Your task to perform on an android device: Go to Maps Image 0: 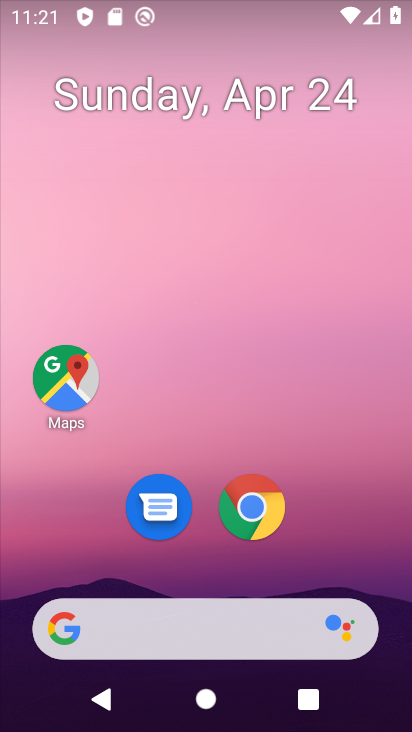
Step 0: drag from (332, 545) to (350, 69)
Your task to perform on an android device: Go to Maps Image 1: 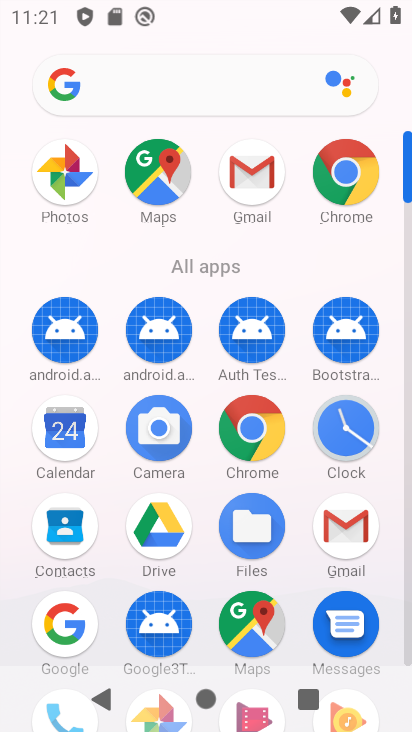
Step 1: click (240, 632)
Your task to perform on an android device: Go to Maps Image 2: 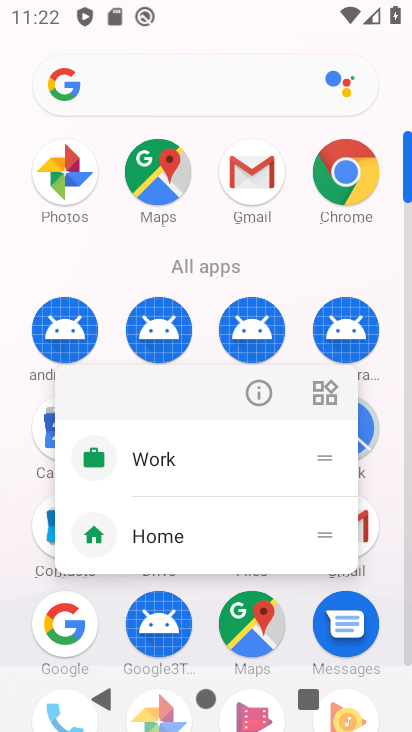
Step 2: click (257, 618)
Your task to perform on an android device: Go to Maps Image 3: 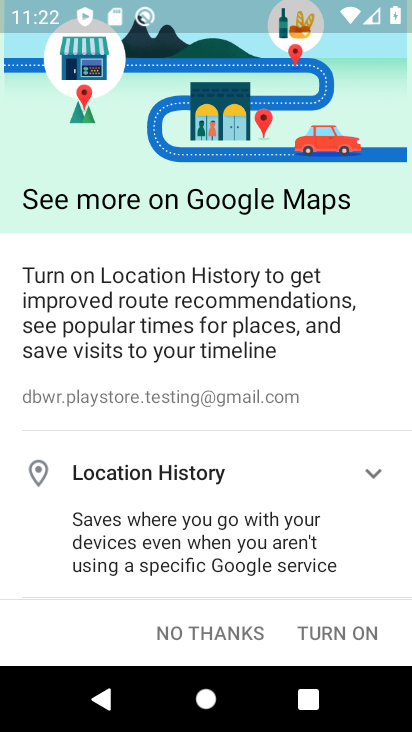
Step 3: click (232, 626)
Your task to perform on an android device: Go to Maps Image 4: 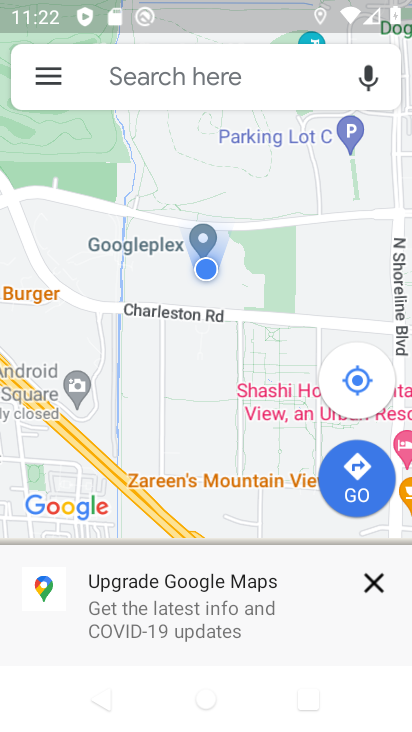
Step 4: task complete